Your task to perform on an android device: turn off wifi Image 0: 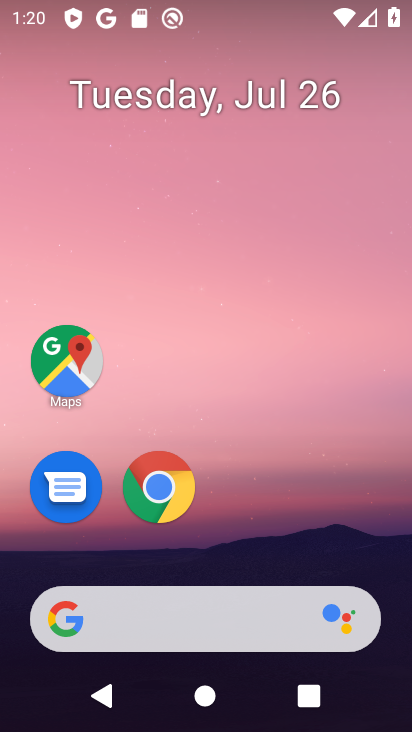
Step 0: drag from (227, 630) to (215, 36)
Your task to perform on an android device: turn off wifi Image 1: 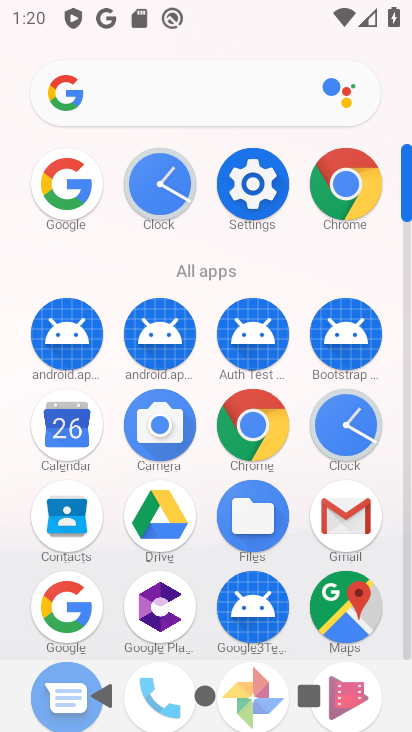
Step 1: click (236, 204)
Your task to perform on an android device: turn off wifi Image 2: 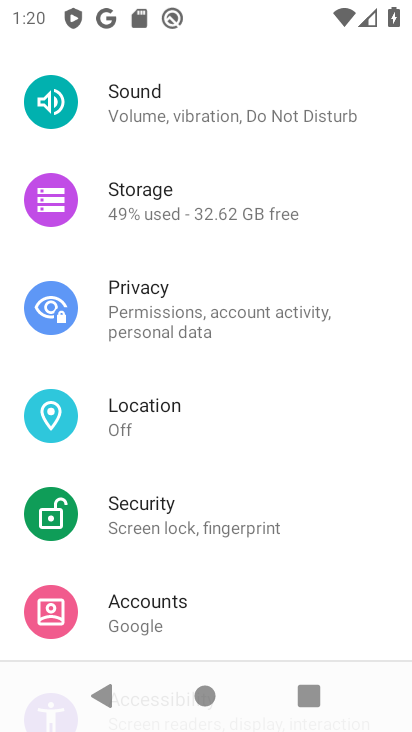
Step 2: drag from (193, 354) to (178, 571)
Your task to perform on an android device: turn off wifi Image 3: 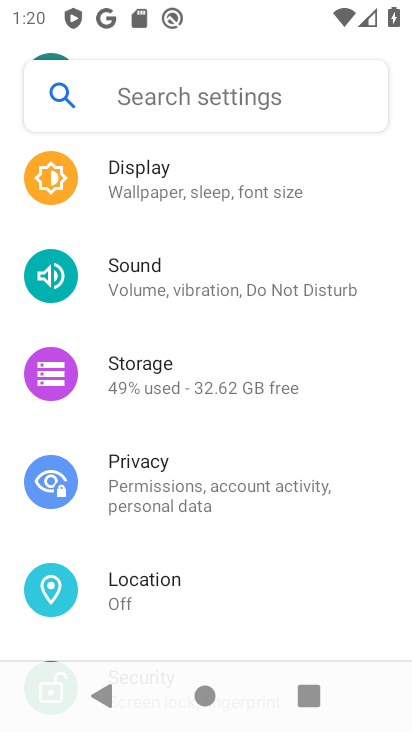
Step 3: drag from (177, 324) to (180, 541)
Your task to perform on an android device: turn off wifi Image 4: 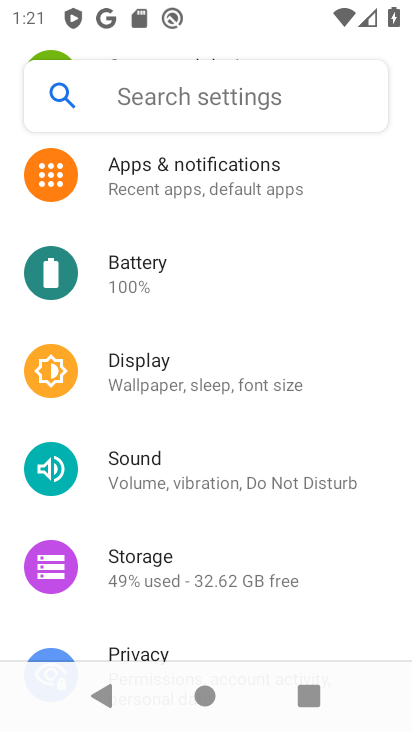
Step 4: drag from (194, 267) to (181, 669)
Your task to perform on an android device: turn off wifi Image 5: 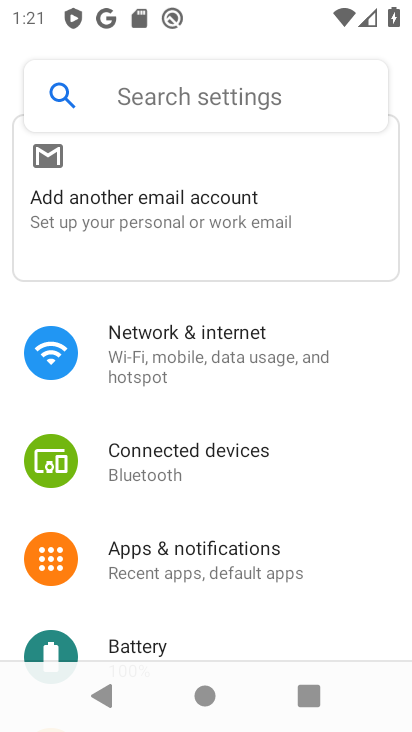
Step 5: click (178, 347)
Your task to perform on an android device: turn off wifi Image 6: 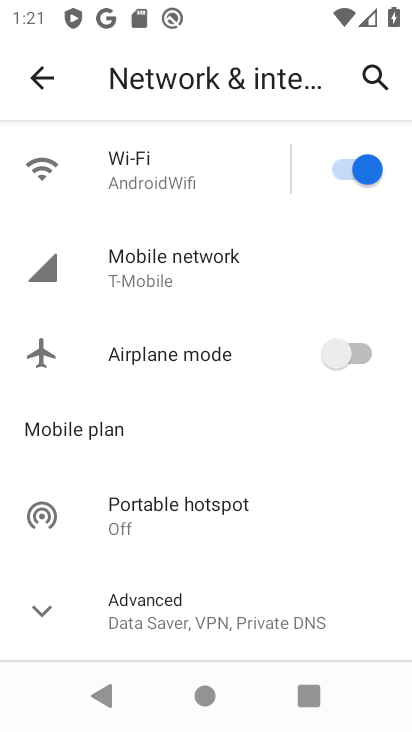
Step 6: click (334, 169)
Your task to perform on an android device: turn off wifi Image 7: 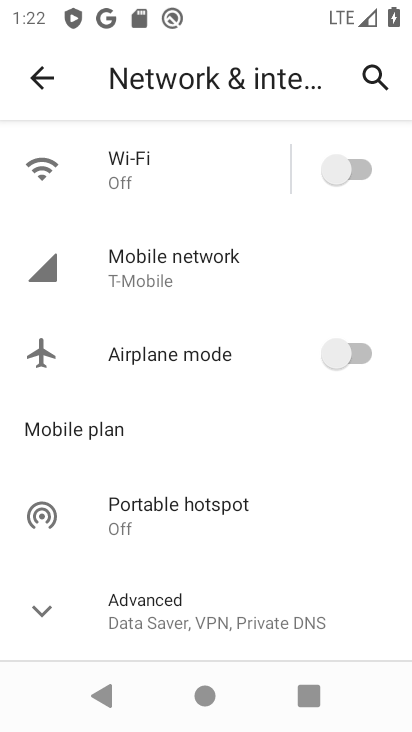
Step 7: task complete